Your task to perform on an android device: find which apps use the phone's location Image 0: 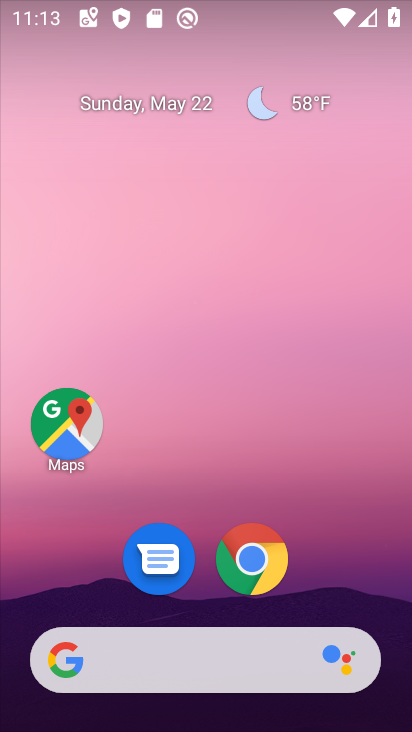
Step 0: drag from (187, 648) to (129, 13)
Your task to perform on an android device: find which apps use the phone's location Image 1: 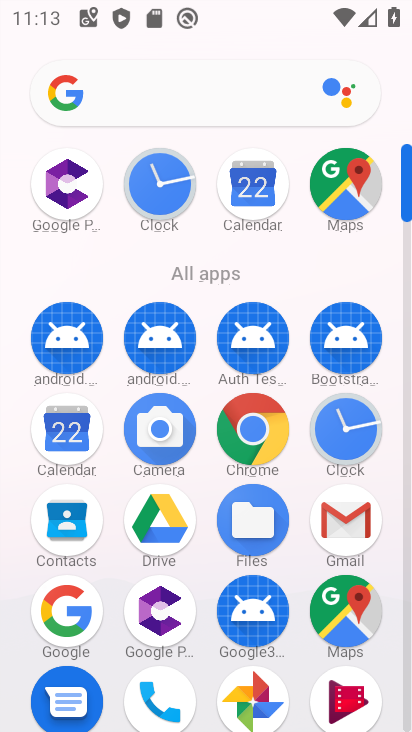
Step 1: drag from (182, 596) to (79, 31)
Your task to perform on an android device: find which apps use the phone's location Image 2: 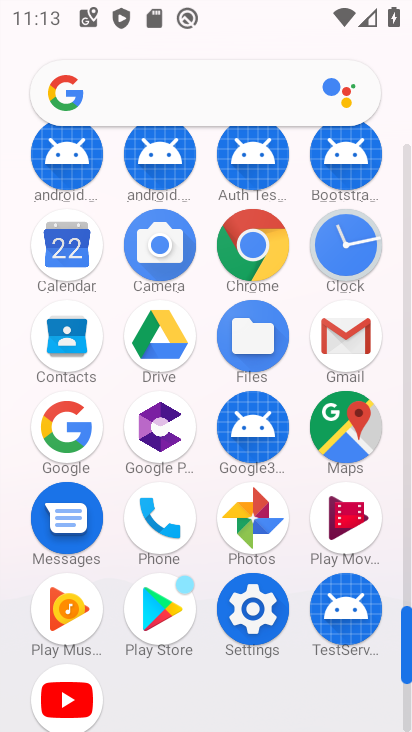
Step 2: click (263, 614)
Your task to perform on an android device: find which apps use the phone's location Image 3: 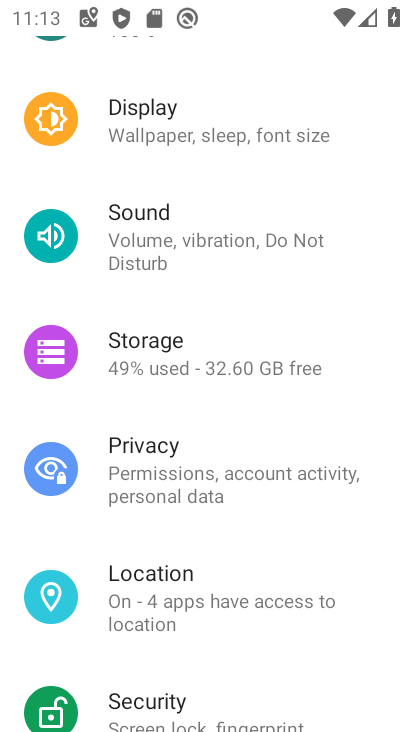
Step 3: click (160, 589)
Your task to perform on an android device: find which apps use the phone's location Image 4: 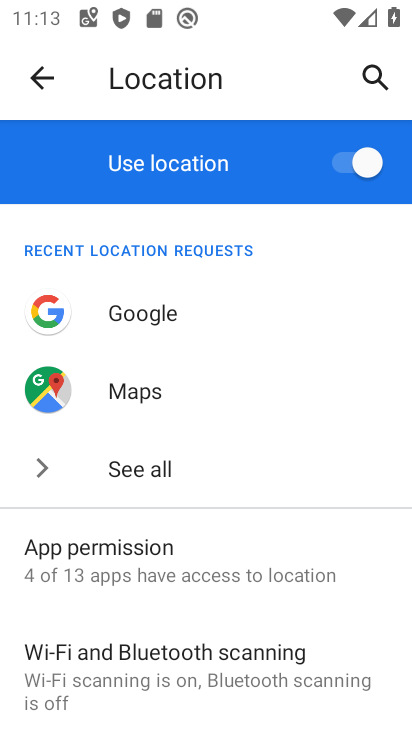
Step 4: click (147, 582)
Your task to perform on an android device: find which apps use the phone's location Image 5: 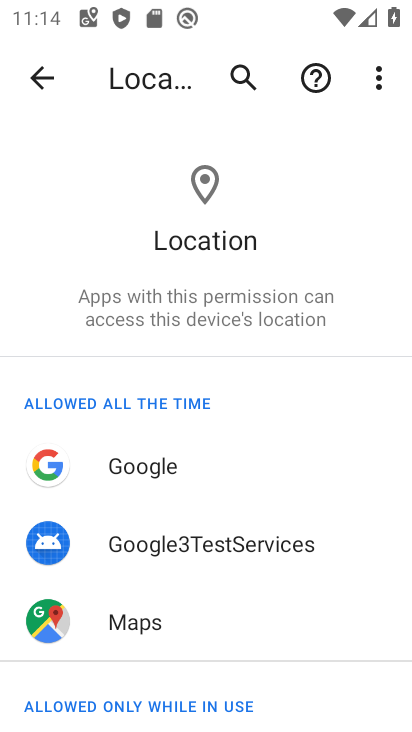
Step 5: task complete